Your task to perform on an android device: Open the Play Movies app and select the watchlist tab. Image 0: 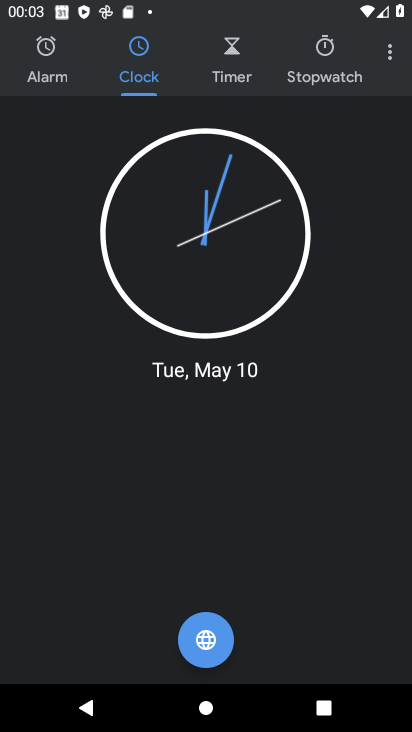
Step 0: press home button
Your task to perform on an android device: Open the Play Movies app and select the watchlist tab. Image 1: 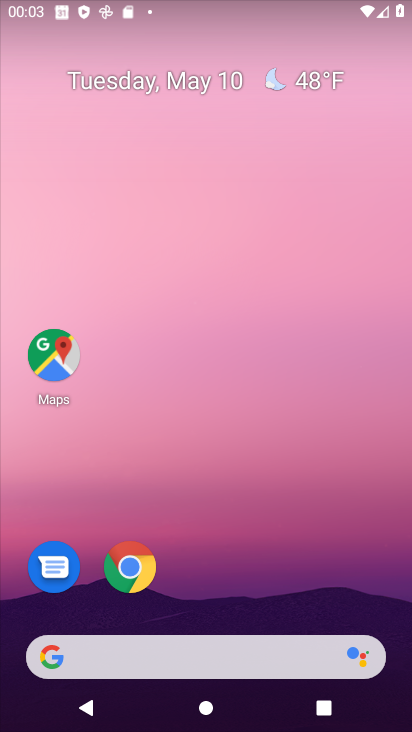
Step 1: drag from (241, 559) to (238, 212)
Your task to perform on an android device: Open the Play Movies app and select the watchlist tab. Image 2: 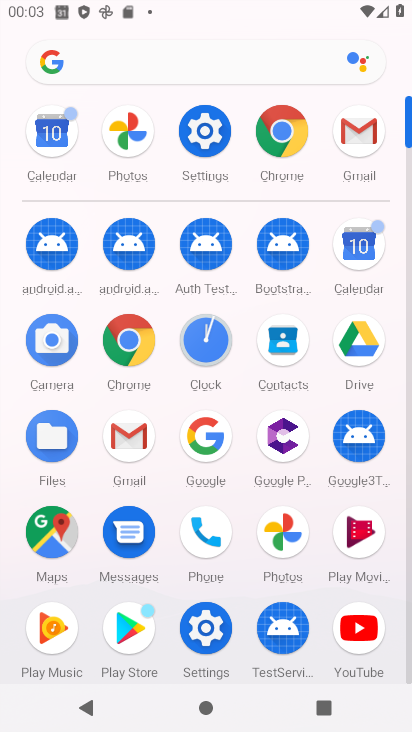
Step 2: click (366, 548)
Your task to perform on an android device: Open the Play Movies app and select the watchlist tab. Image 3: 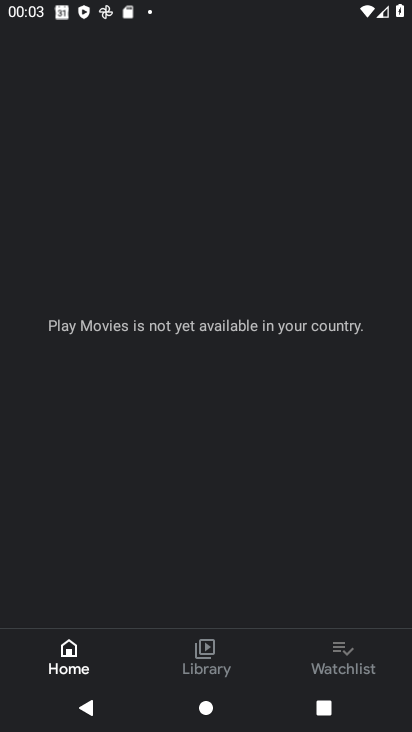
Step 3: click (344, 661)
Your task to perform on an android device: Open the Play Movies app and select the watchlist tab. Image 4: 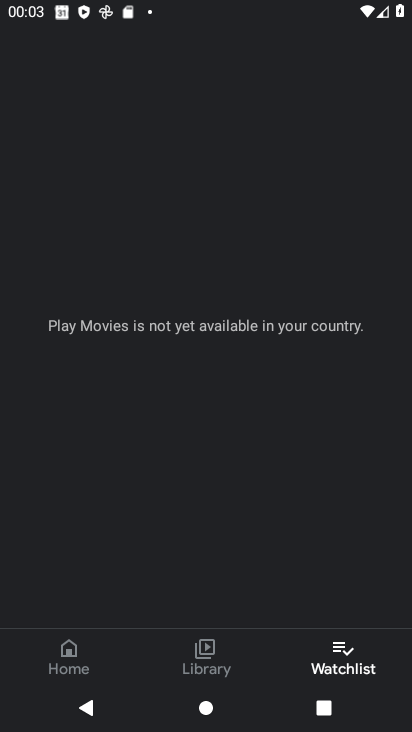
Step 4: task complete